Your task to perform on an android device: What's on my calendar today? Image 0: 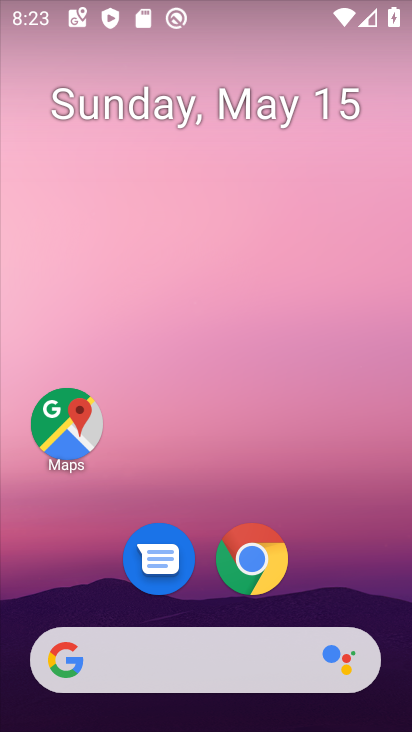
Step 0: drag from (375, 576) to (359, 137)
Your task to perform on an android device: What's on my calendar today? Image 1: 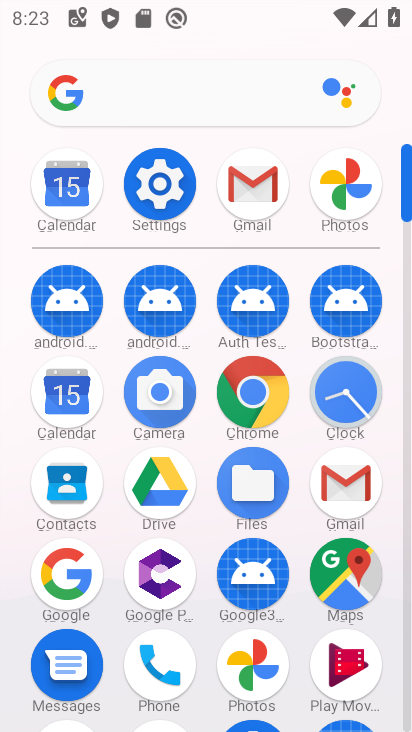
Step 1: click (90, 397)
Your task to perform on an android device: What's on my calendar today? Image 2: 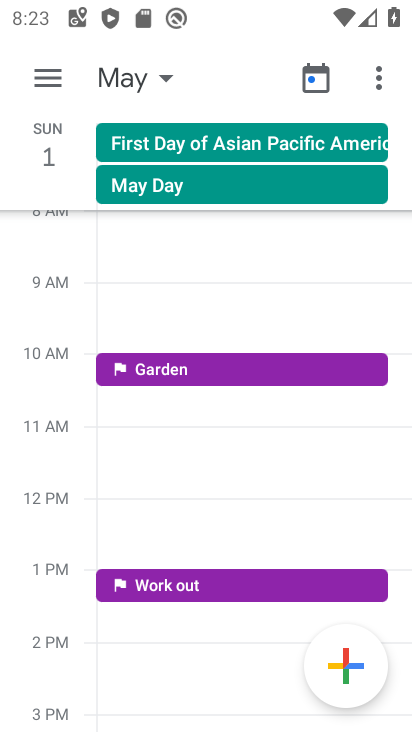
Step 2: task complete